Your task to perform on an android device: Open Amazon Image 0: 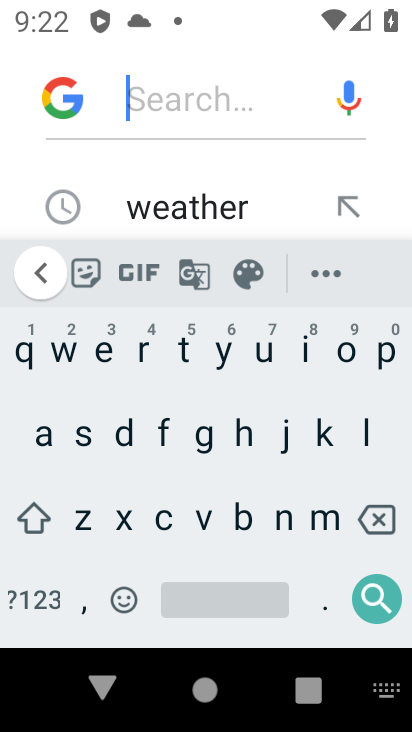
Step 0: press back button
Your task to perform on an android device: Open Amazon Image 1: 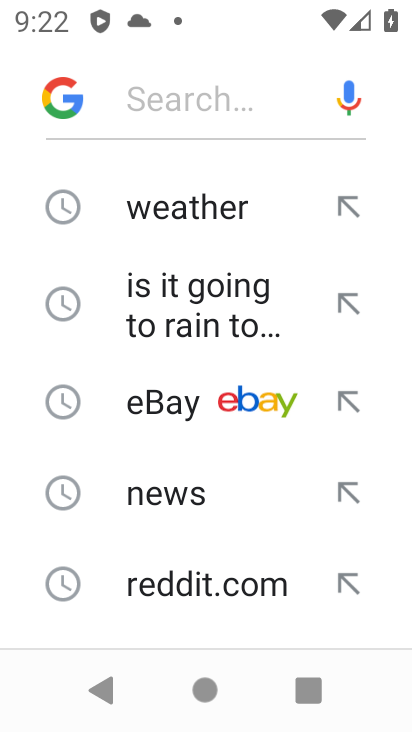
Step 1: press back button
Your task to perform on an android device: Open Amazon Image 2: 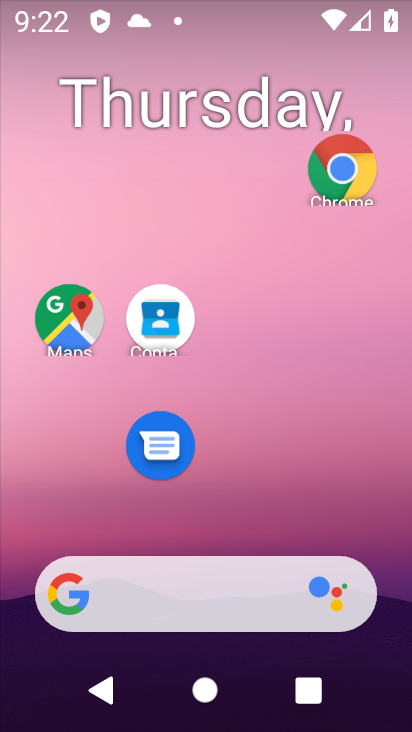
Step 2: drag from (223, 639) to (297, 170)
Your task to perform on an android device: Open Amazon Image 3: 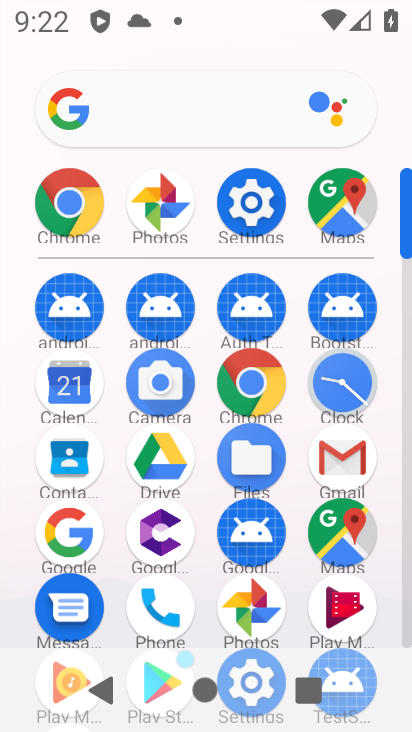
Step 3: click (78, 198)
Your task to perform on an android device: Open Amazon Image 4: 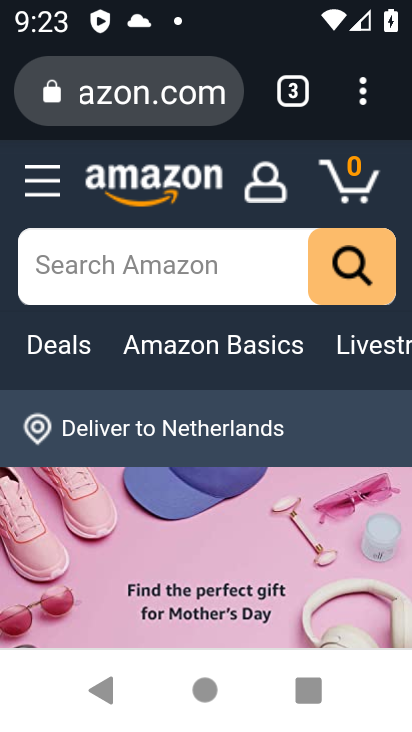
Step 4: task complete